Your task to perform on an android device: change text size in settings app Image 0: 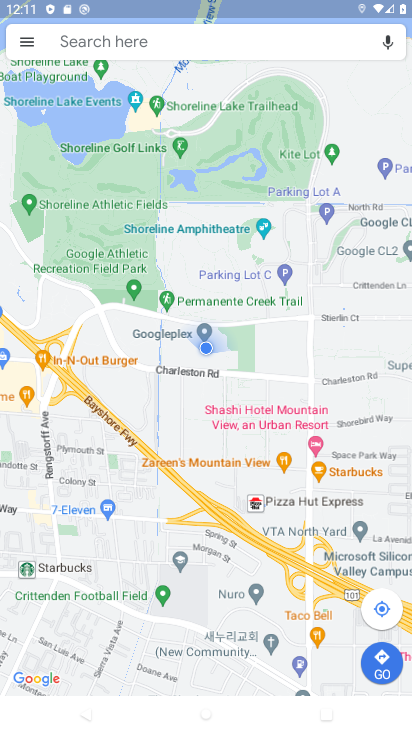
Step 0: press home button
Your task to perform on an android device: change text size in settings app Image 1: 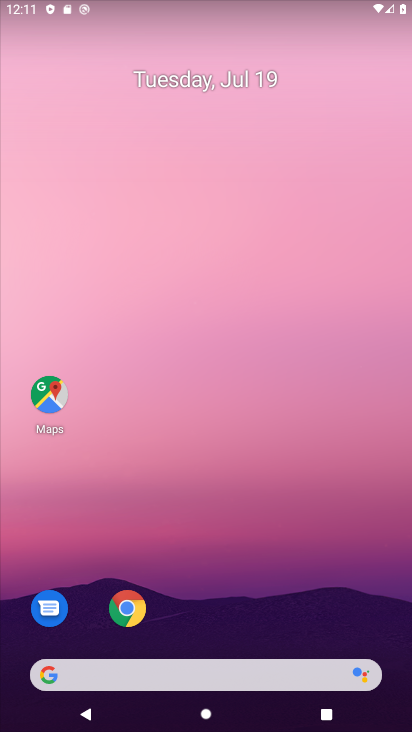
Step 1: drag from (275, 589) to (321, 166)
Your task to perform on an android device: change text size in settings app Image 2: 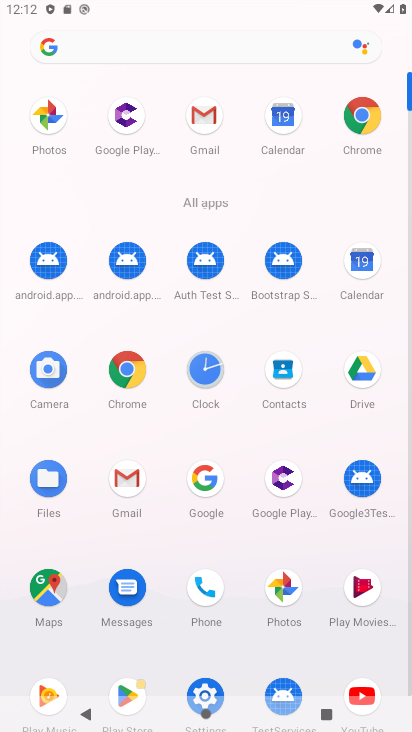
Step 2: click (211, 696)
Your task to perform on an android device: change text size in settings app Image 3: 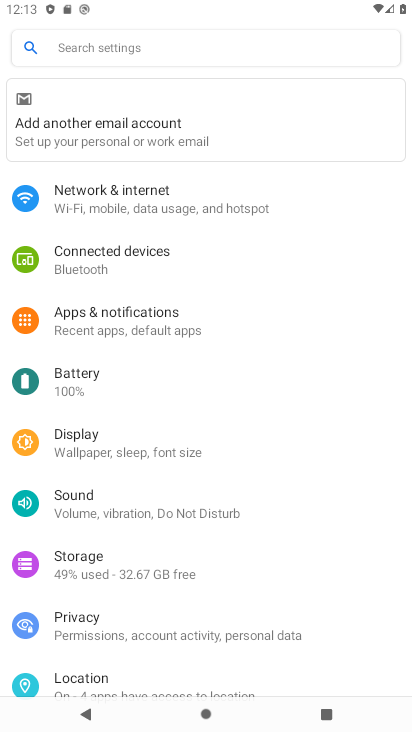
Step 3: click (85, 436)
Your task to perform on an android device: change text size in settings app Image 4: 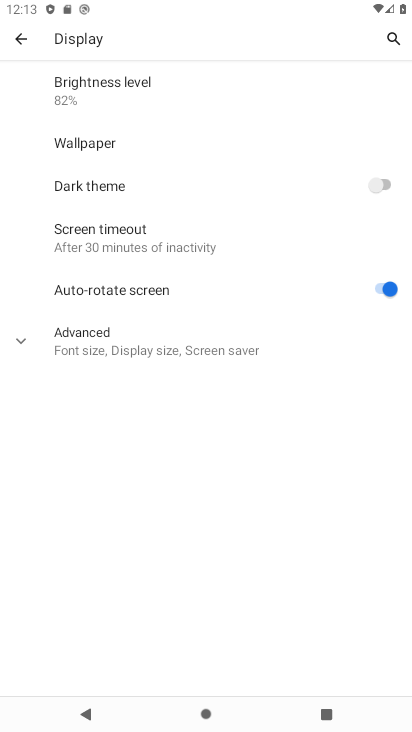
Step 4: click (23, 38)
Your task to perform on an android device: change text size in settings app Image 5: 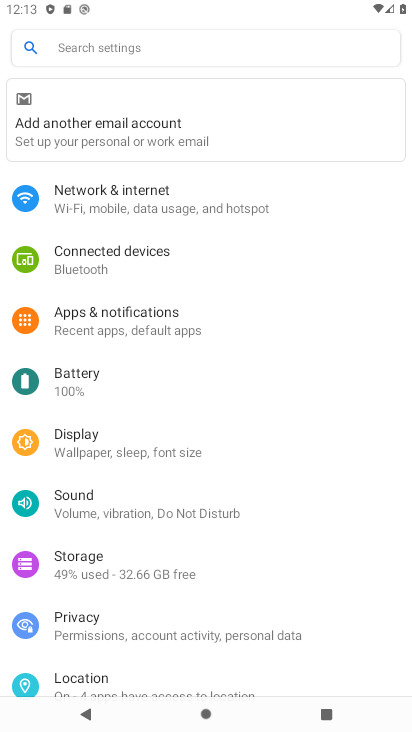
Step 5: task complete